Your task to perform on an android device: show emergency info Image 0: 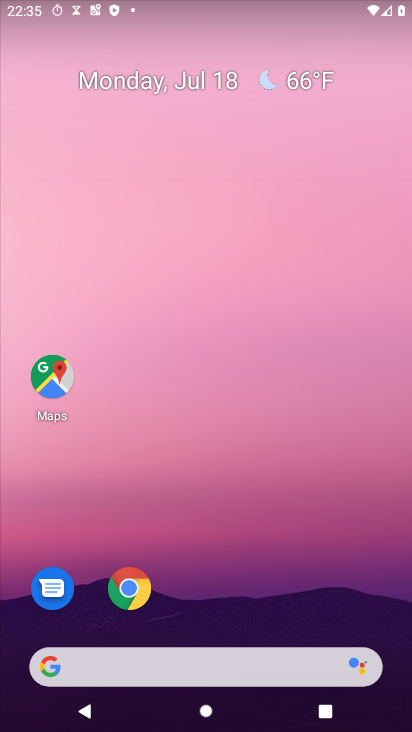
Step 0: drag from (294, 389) to (396, 76)
Your task to perform on an android device: show emergency info Image 1: 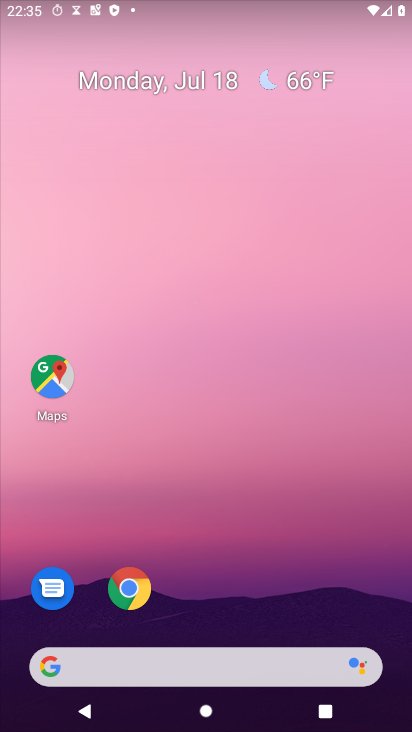
Step 1: drag from (144, 663) to (373, 145)
Your task to perform on an android device: show emergency info Image 2: 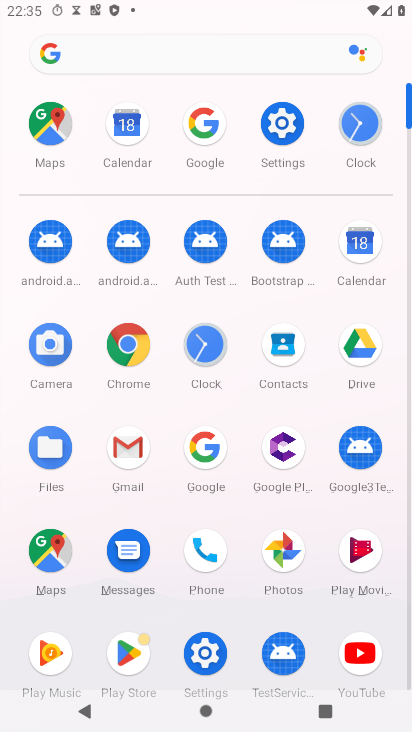
Step 2: click (274, 126)
Your task to perform on an android device: show emergency info Image 3: 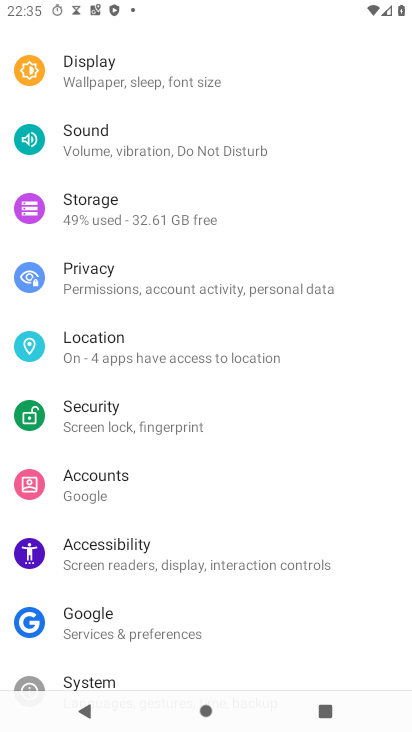
Step 3: drag from (203, 664) to (399, 168)
Your task to perform on an android device: show emergency info Image 4: 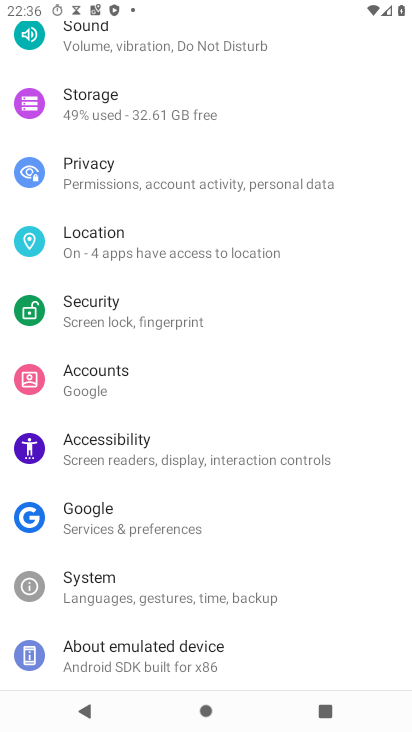
Step 4: click (146, 656)
Your task to perform on an android device: show emergency info Image 5: 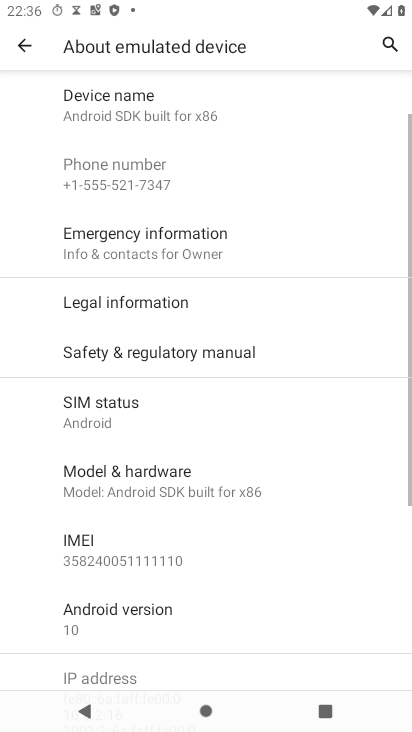
Step 5: click (196, 237)
Your task to perform on an android device: show emergency info Image 6: 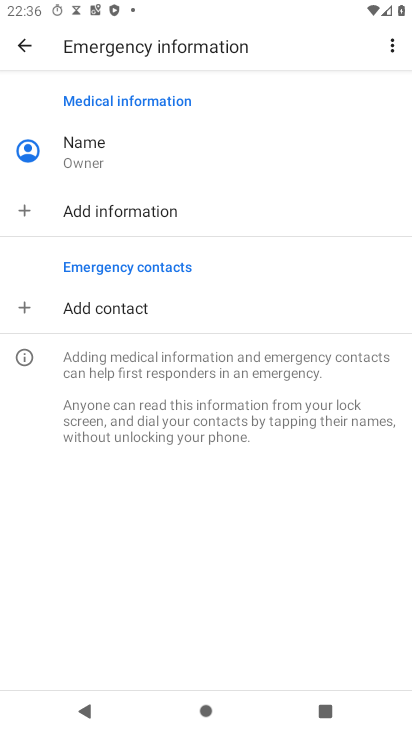
Step 6: task complete